Your task to perform on an android device: set the timer Image 0: 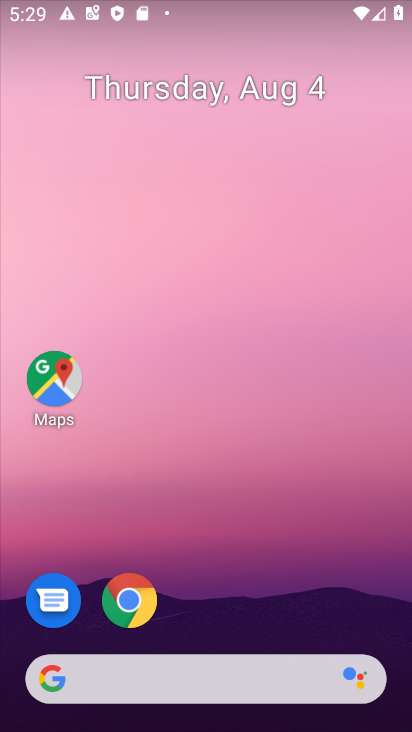
Step 0: drag from (290, 543) to (279, 103)
Your task to perform on an android device: set the timer Image 1: 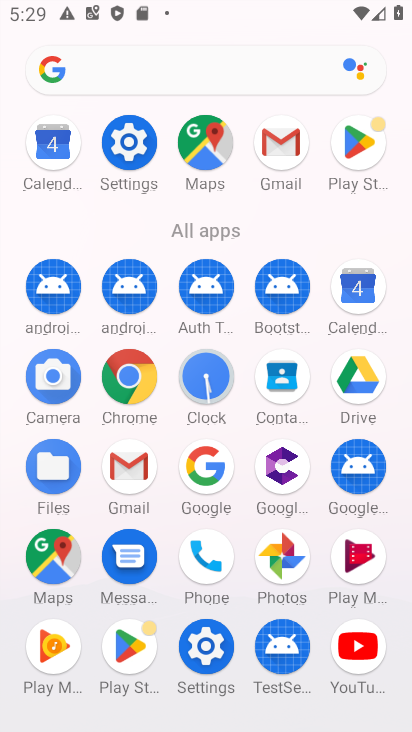
Step 1: click (210, 387)
Your task to perform on an android device: set the timer Image 2: 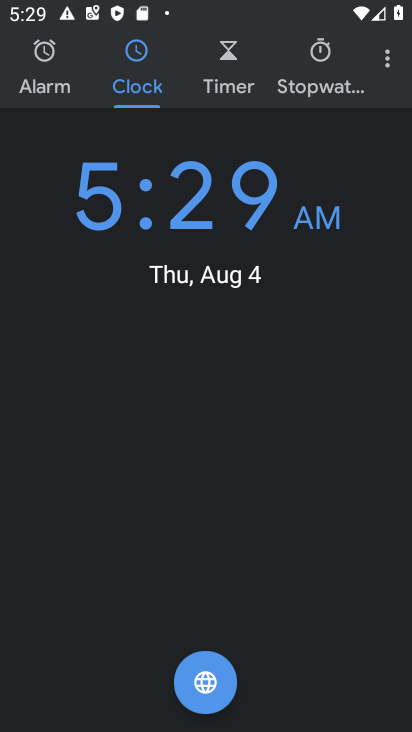
Step 2: click (224, 79)
Your task to perform on an android device: set the timer Image 3: 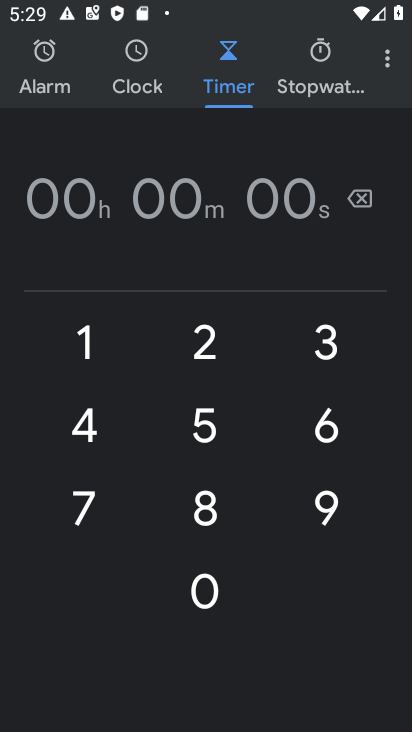
Step 3: task complete